Your task to perform on an android device: turn off translation in the chrome app Image 0: 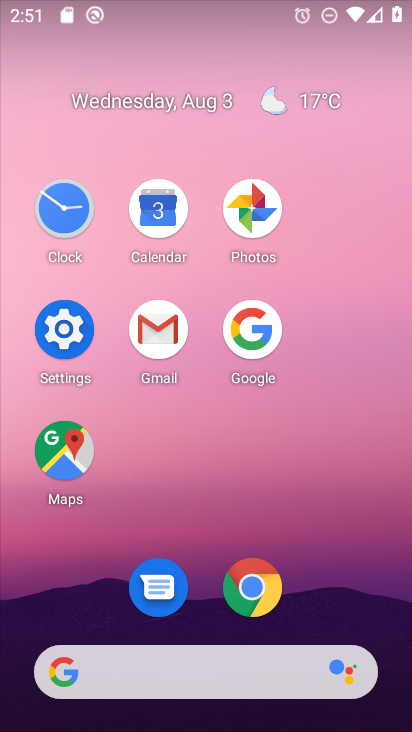
Step 0: click (236, 603)
Your task to perform on an android device: turn off translation in the chrome app Image 1: 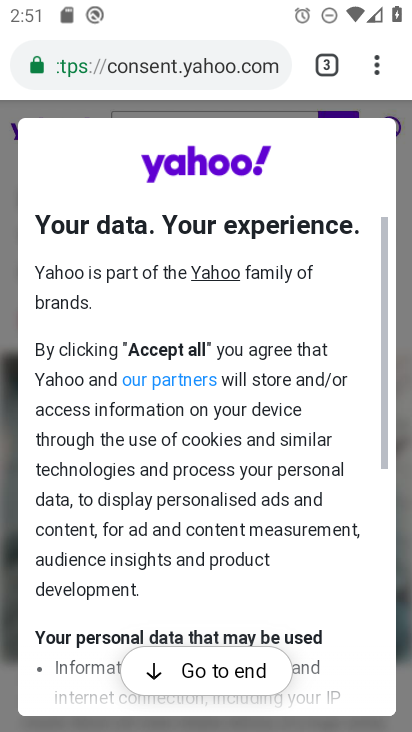
Step 1: click (384, 65)
Your task to perform on an android device: turn off translation in the chrome app Image 2: 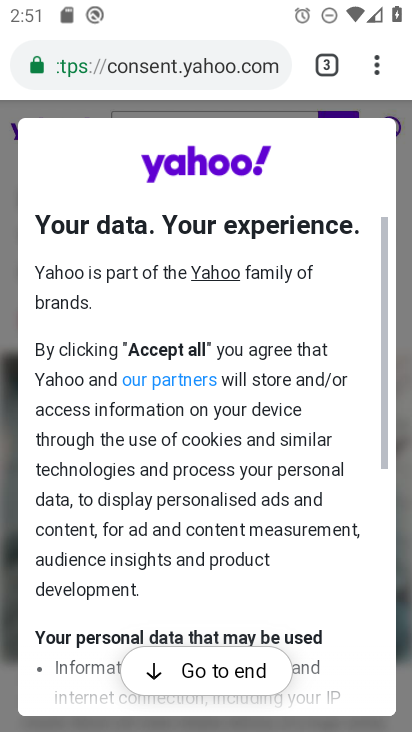
Step 2: click (373, 65)
Your task to perform on an android device: turn off translation in the chrome app Image 3: 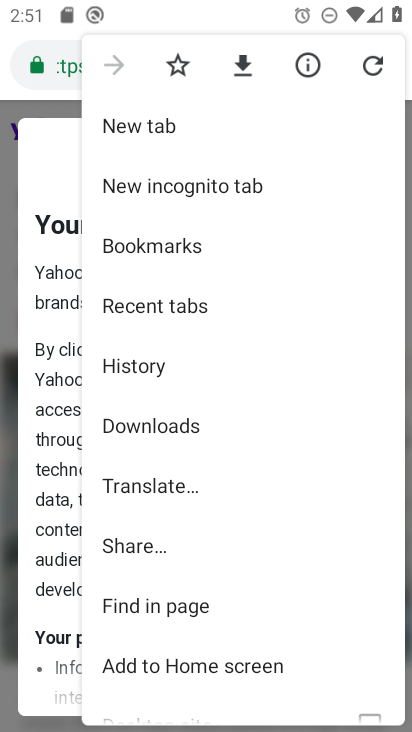
Step 3: drag from (178, 584) to (205, 298)
Your task to perform on an android device: turn off translation in the chrome app Image 4: 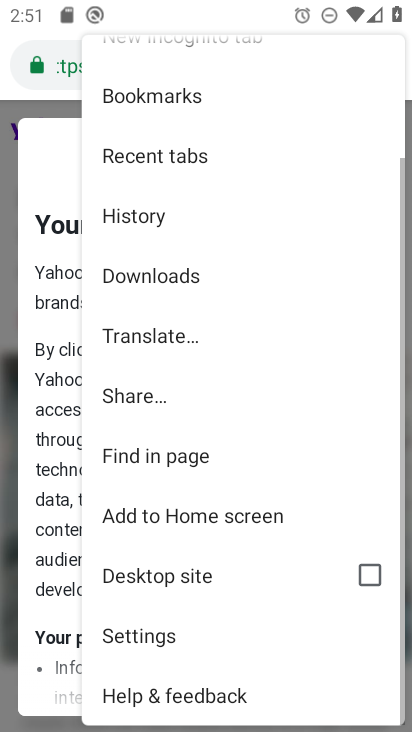
Step 4: click (143, 640)
Your task to perform on an android device: turn off translation in the chrome app Image 5: 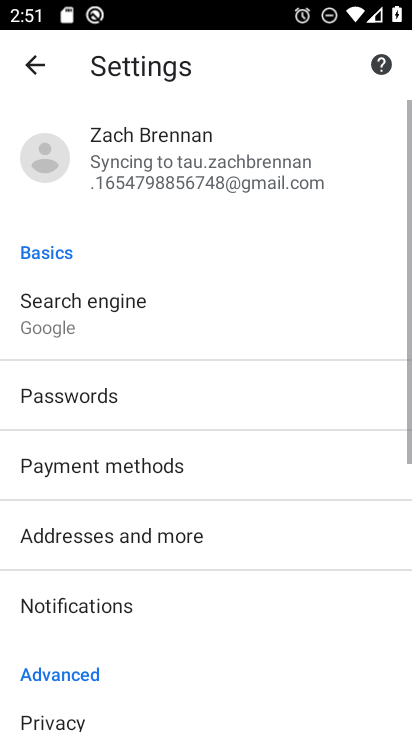
Step 5: drag from (214, 530) to (223, 153)
Your task to perform on an android device: turn off translation in the chrome app Image 6: 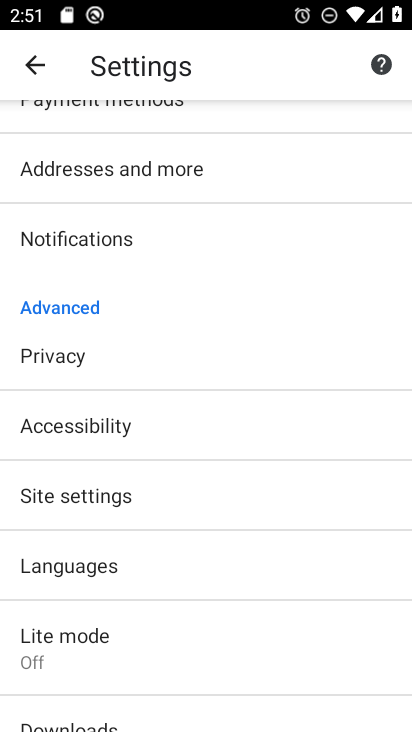
Step 6: click (241, 553)
Your task to perform on an android device: turn off translation in the chrome app Image 7: 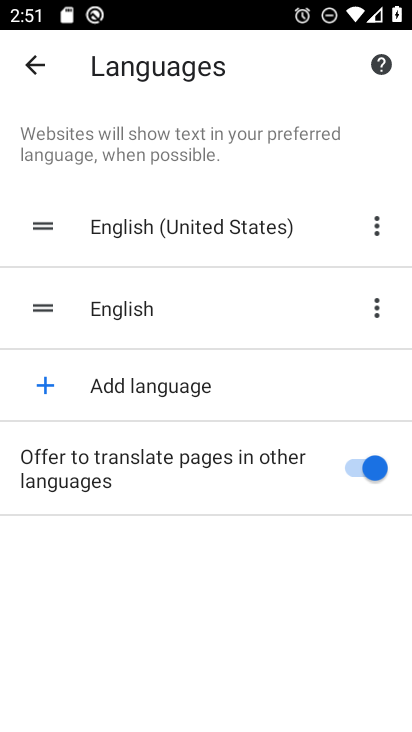
Step 7: click (377, 476)
Your task to perform on an android device: turn off translation in the chrome app Image 8: 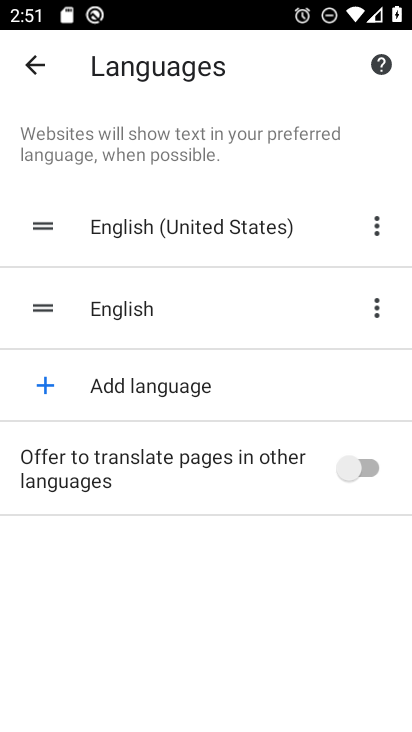
Step 8: task complete